Your task to perform on an android device: Open display settings Image 0: 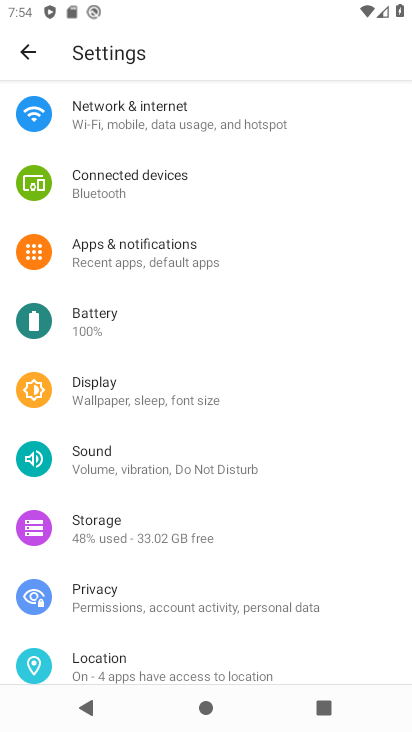
Step 0: click (136, 400)
Your task to perform on an android device: Open display settings Image 1: 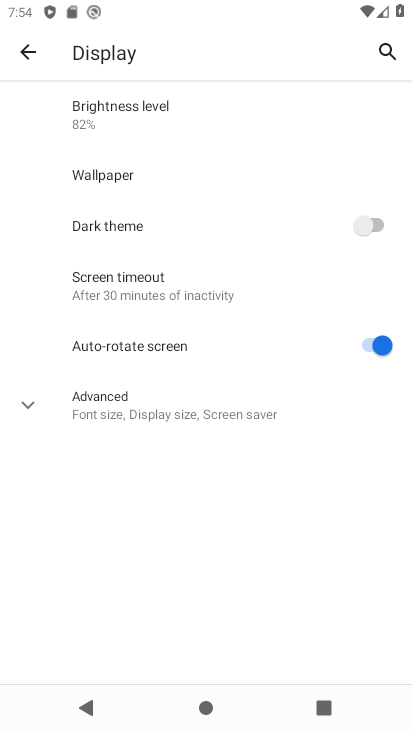
Step 1: task complete